Your task to perform on an android device: visit the assistant section in the google photos Image 0: 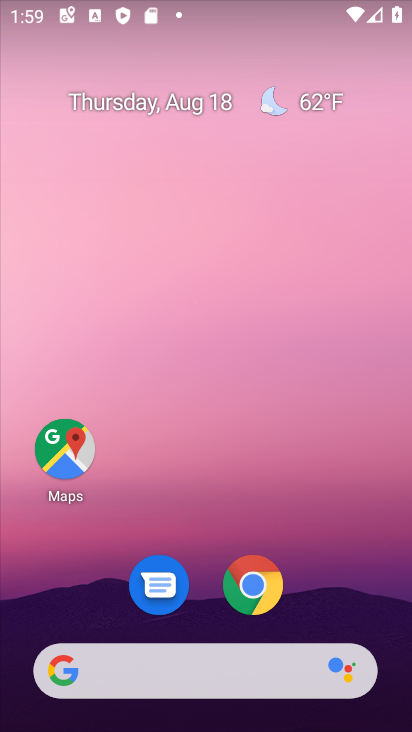
Step 0: drag from (303, 531) to (321, 1)
Your task to perform on an android device: visit the assistant section in the google photos Image 1: 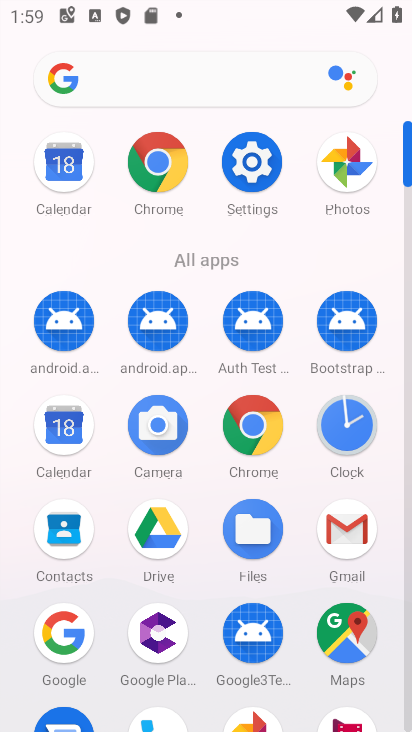
Step 1: click (350, 160)
Your task to perform on an android device: visit the assistant section in the google photos Image 2: 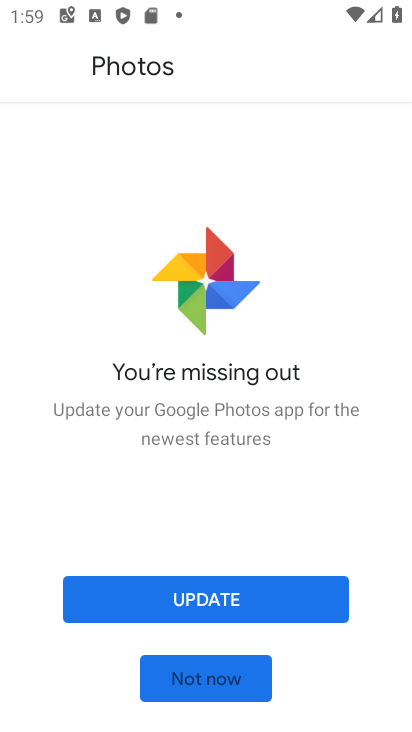
Step 2: click (242, 669)
Your task to perform on an android device: visit the assistant section in the google photos Image 3: 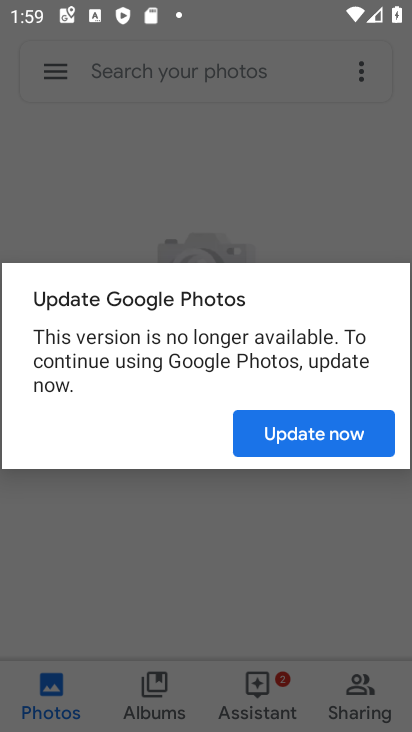
Step 3: click (328, 431)
Your task to perform on an android device: visit the assistant section in the google photos Image 4: 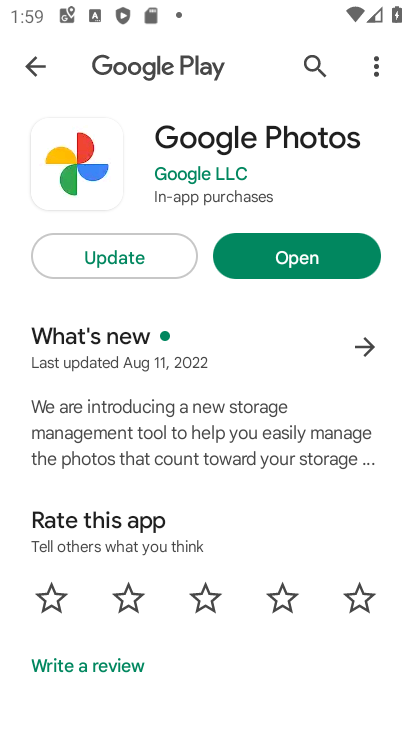
Step 4: click (314, 257)
Your task to perform on an android device: visit the assistant section in the google photos Image 5: 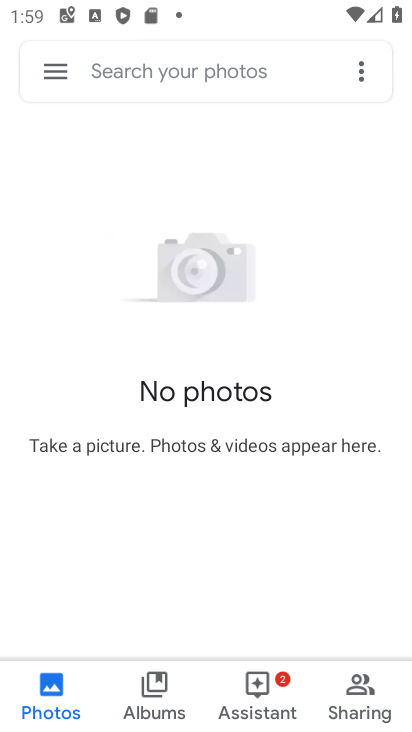
Step 5: click (267, 696)
Your task to perform on an android device: visit the assistant section in the google photos Image 6: 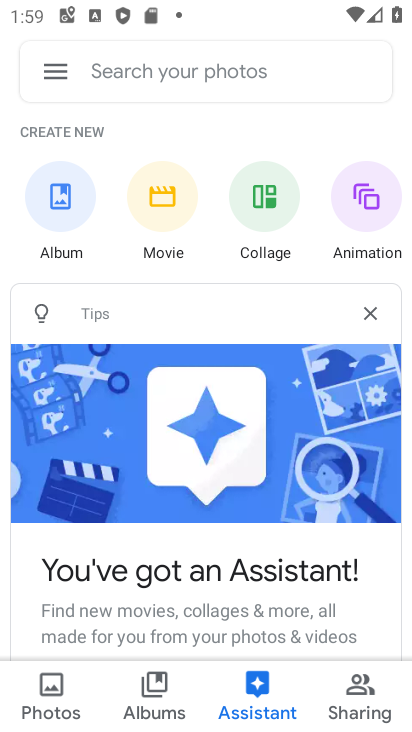
Step 6: task complete